Your task to perform on an android device: What's the weather? Image 0: 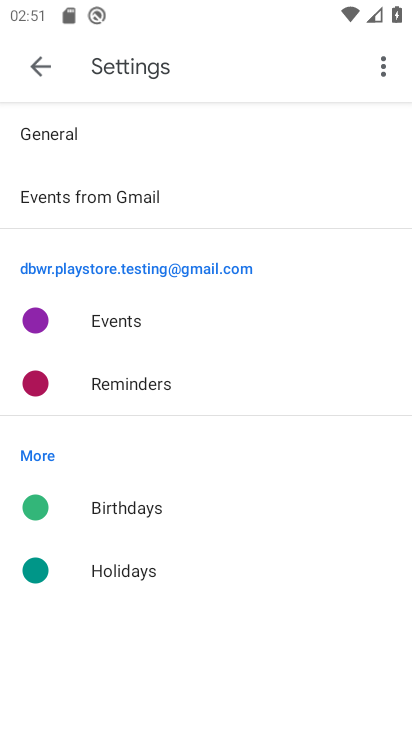
Step 0: press home button
Your task to perform on an android device: What's the weather? Image 1: 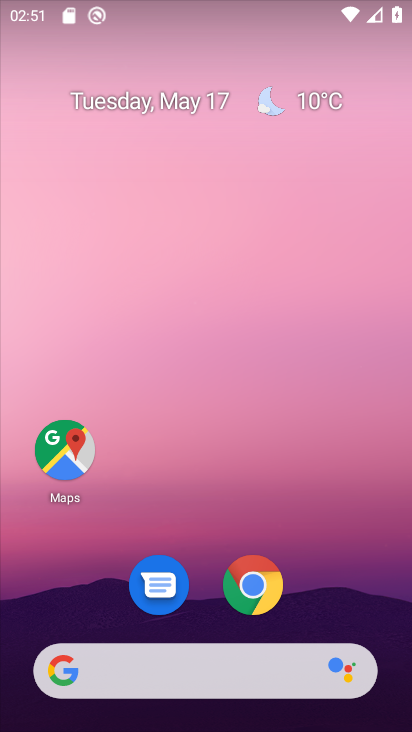
Step 1: click (313, 95)
Your task to perform on an android device: What's the weather? Image 2: 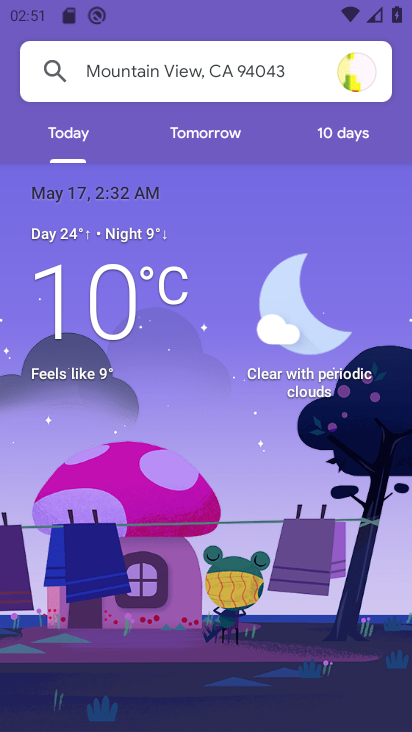
Step 2: task complete